Your task to perform on an android device: What's the weather going to be tomorrow? Image 0: 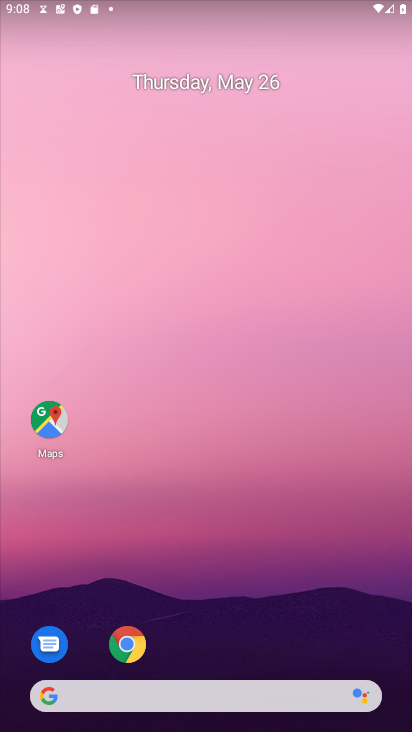
Step 0: click (214, 700)
Your task to perform on an android device: What's the weather going to be tomorrow? Image 1: 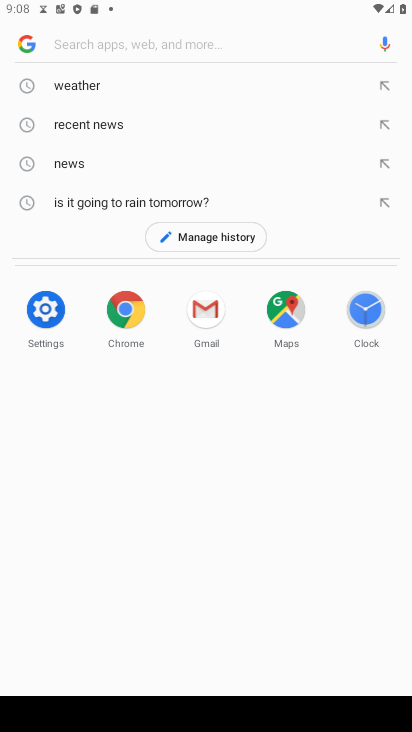
Step 1: click (73, 100)
Your task to perform on an android device: What's the weather going to be tomorrow? Image 2: 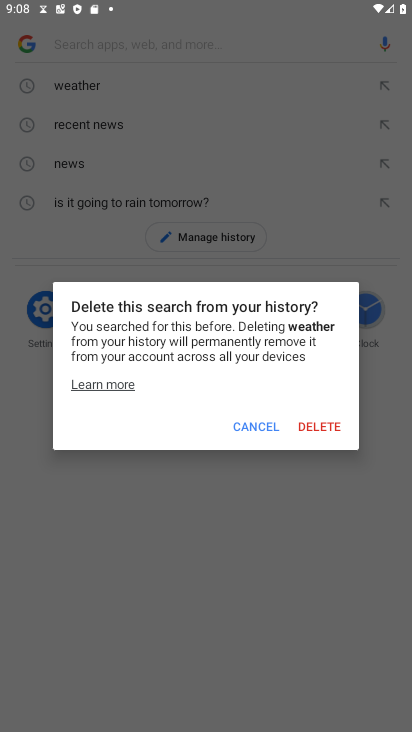
Step 2: click (248, 433)
Your task to perform on an android device: What's the weather going to be tomorrow? Image 3: 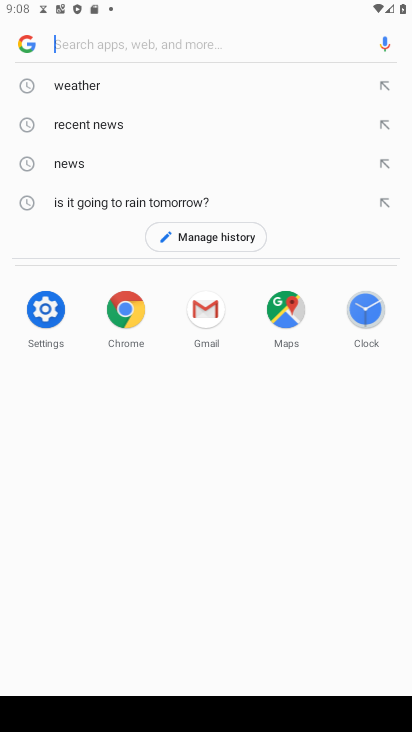
Step 3: click (124, 81)
Your task to perform on an android device: What's the weather going to be tomorrow? Image 4: 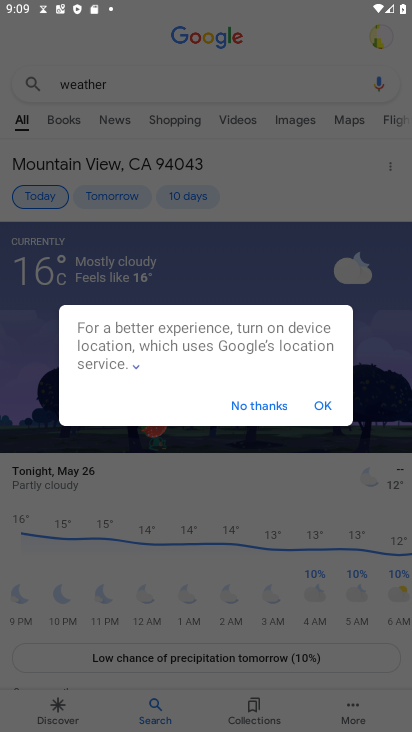
Step 4: click (253, 409)
Your task to perform on an android device: What's the weather going to be tomorrow? Image 5: 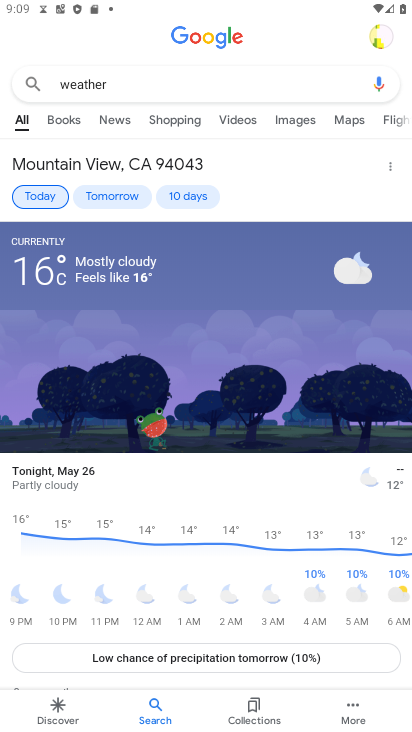
Step 5: click (110, 191)
Your task to perform on an android device: What's the weather going to be tomorrow? Image 6: 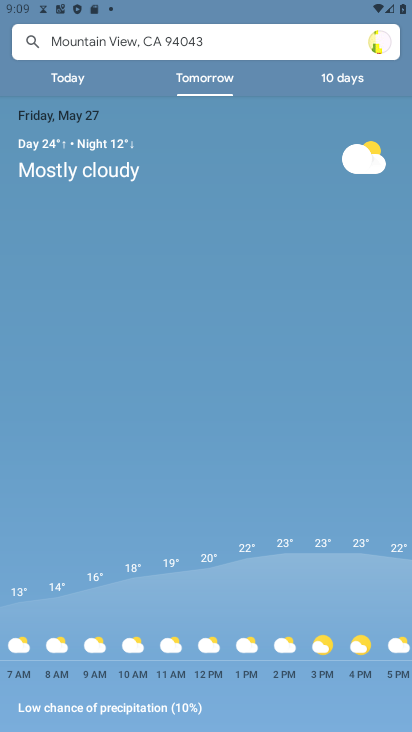
Step 6: task complete